Your task to perform on an android device: Open Google Maps Image 0: 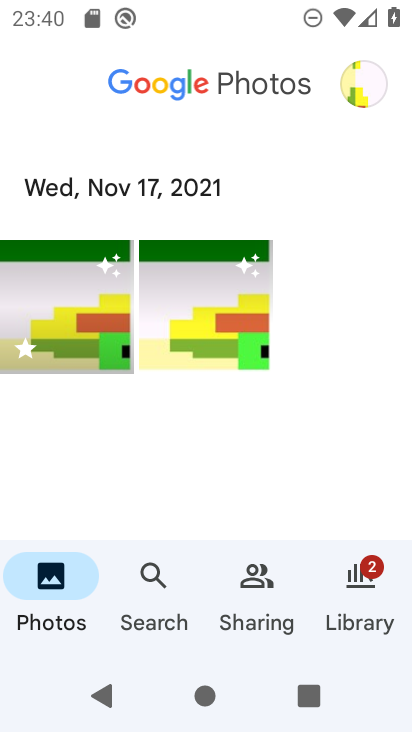
Step 0: press home button
Your task to perform on an android device: Open Google Maps Image 1: 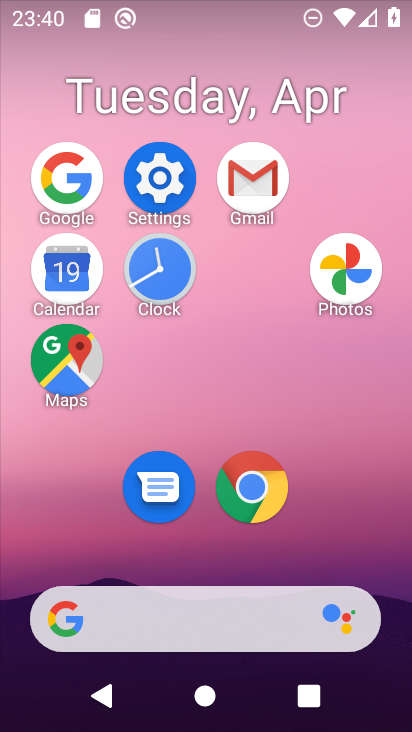
Step 1: click (86, 360)
Your task to perform on an android device: Open Google Maps Image 2: 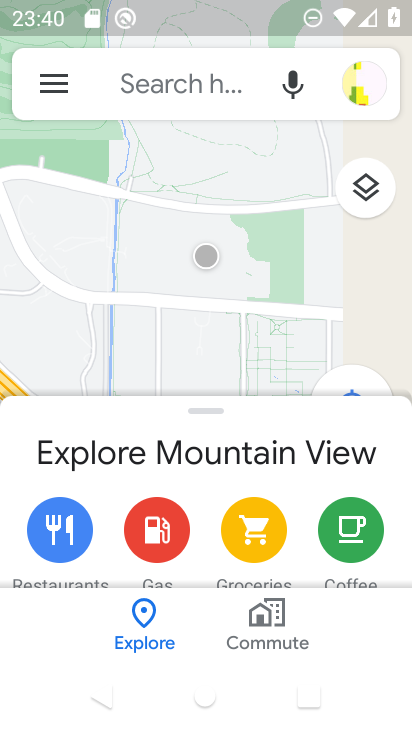
Step 2: task complete